Your task to perform on an android device: Open Google Chrome and click the shortcut for Amazon.com Image 0: 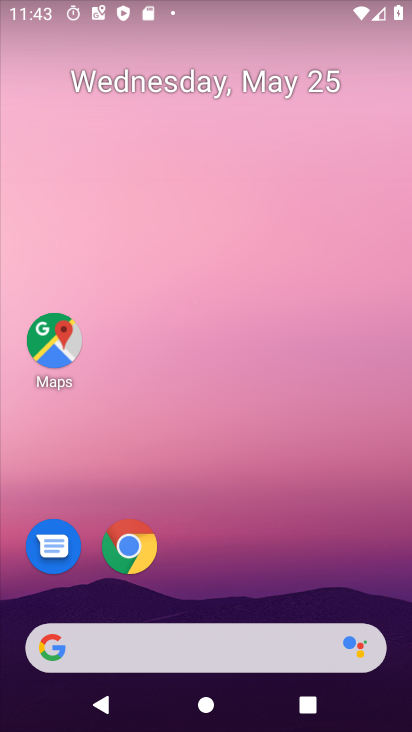
Step 0: click (135, 543)
Your task to perform on an android device: Open Google Chrome and click the shortcut for Amazon.com Image 1: 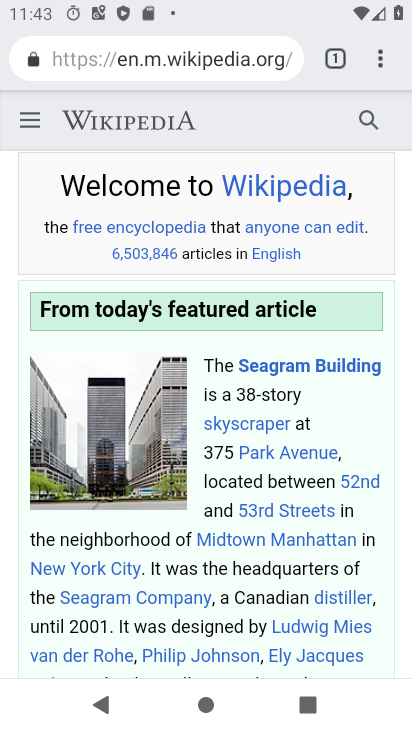
Step 1: click (378, 76)
Your task to perform on an android device: Open Google Chrome and click the shortcut for Amazon.com Image 2: 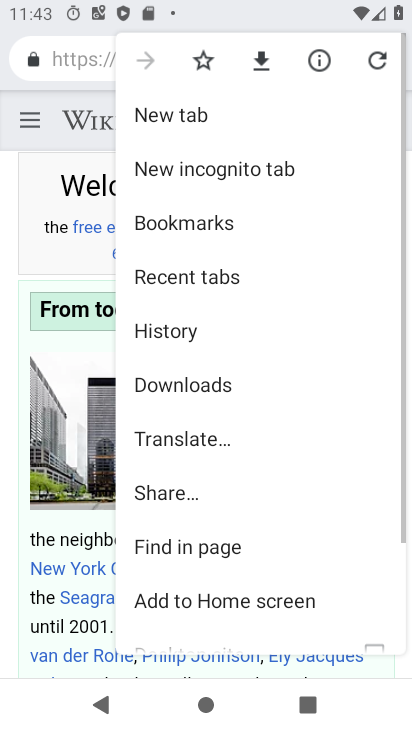
Step 2: click (172, 108)
Your task to perform on an android device: Open Google Chrome and click the shortcut for Amazon.com Image 3: 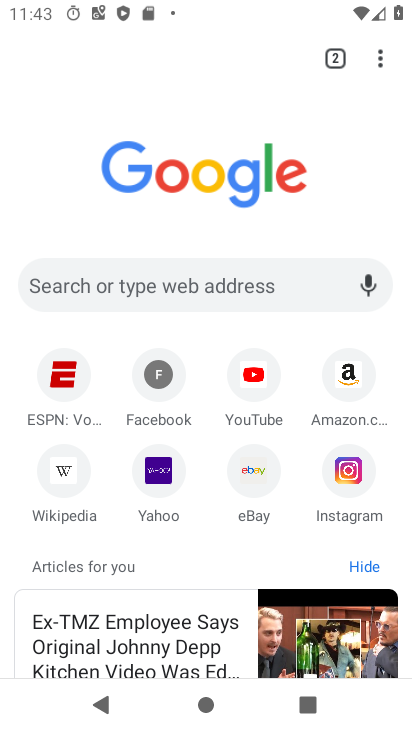
Step 3: click (342, 376)
Your task to perform on an android device: Open Google Chrome and click the shortcut for Amazon.com Image 4: 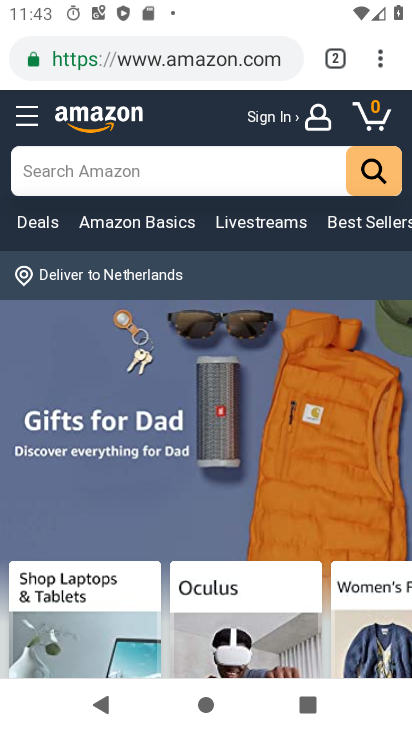
Step 4: task complete